Your task to perform on an android device: Open calendar and show me the fourth week of next month Image 0: 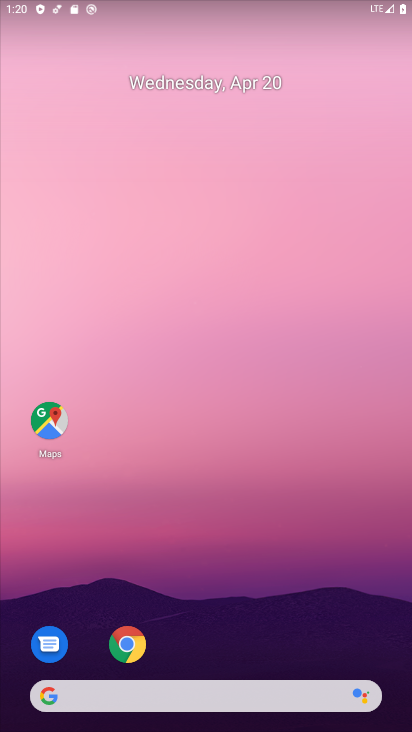
Step 0: drag from (193, 592) to (238, 6)
Your task to perform on an android device: Open calendar and show me the fourth week of next month Image 1: 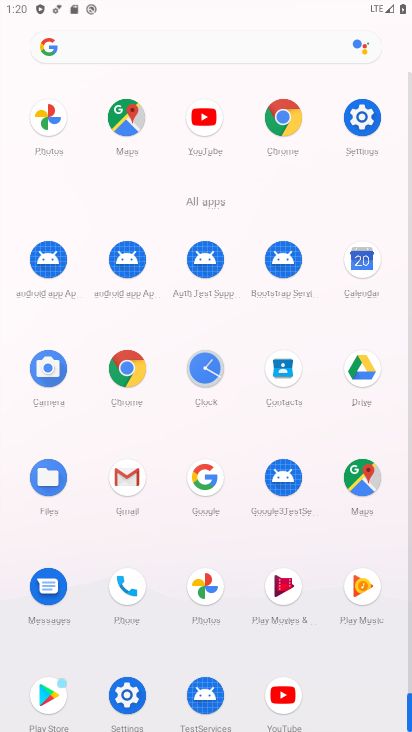
Step 1: click (358, 259)
Your task to perform on an android device: Open calendar and show me the fourth week of next month Image 2: 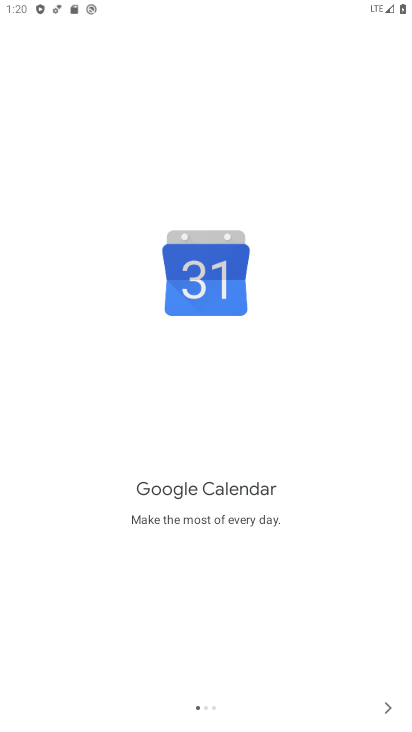
Step 2: click (383, 700)
Your task to perform on an android device: Open calendar and show me the fourth week of next month Image 3: 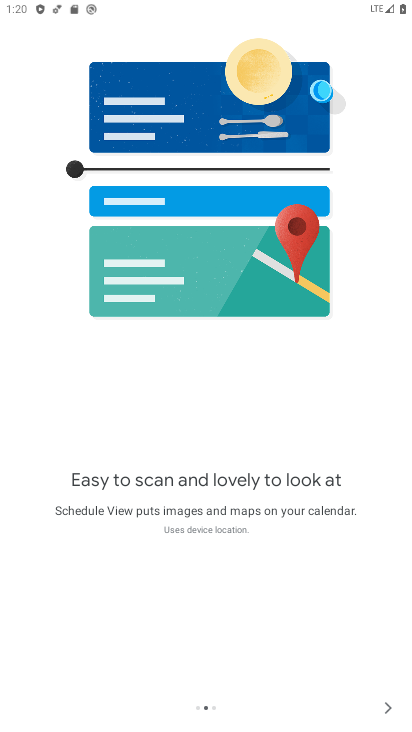
Step 3: click (385, 706)
Your task to perform on an android device: Open calendar and show me the fourth week of next month Image 4: 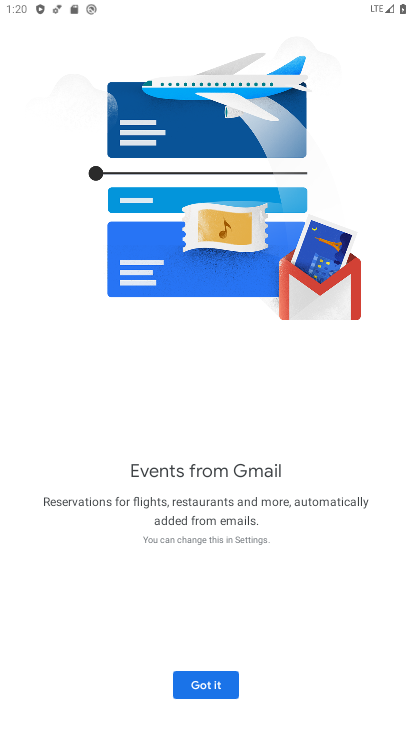
Step 4: click (229, 677)
Your task to perform on an android device: Open calendar and show me the fourth week of next month Image 5: 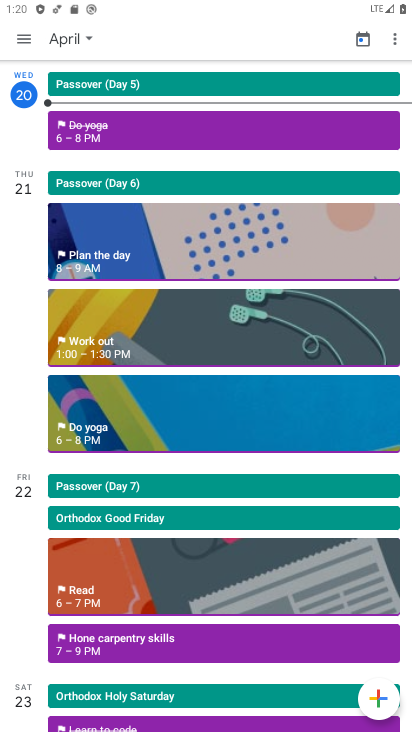
Step 5: click (88, 36)
Your task to perform on an android device: Open calendar and show me the fourth week of next month Image 6: 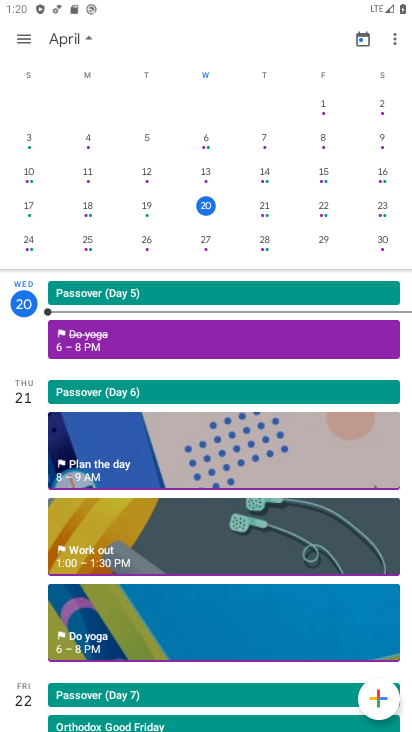
Step 6: drag from (405, 161) to (33, 193)
Your task to perform on an android device: Open calendar and show me the fourth week of next month Image 7: 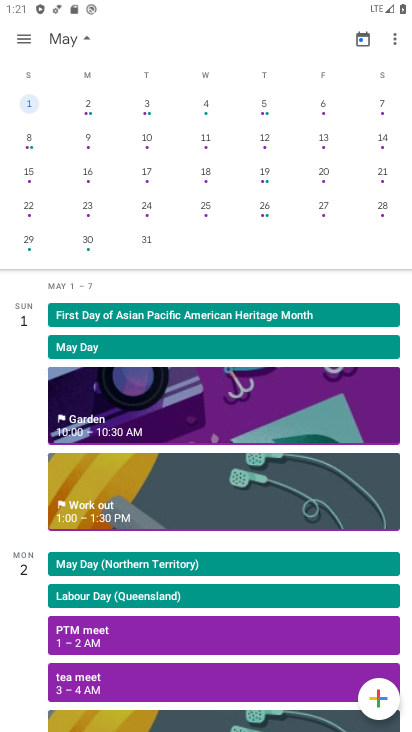
Step 7: click (205, 204)
Your task to perform on an android device: Open calendar and show me the fourth week of next month Image 8: 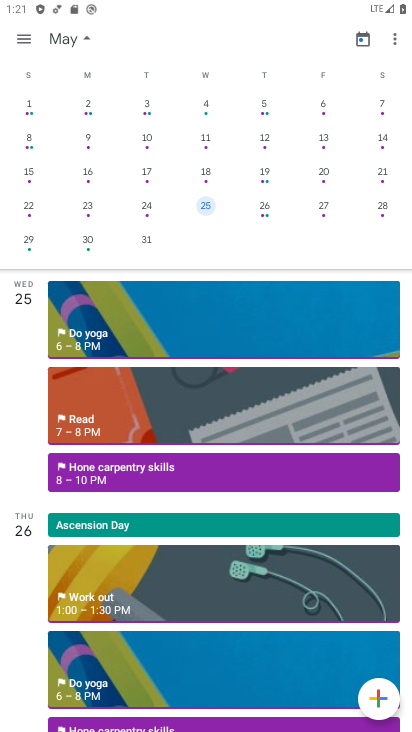
Step 8: click (12, 32)
Your task to perform on an android device: Open calendar and show me the fourth week of next month Image 9: 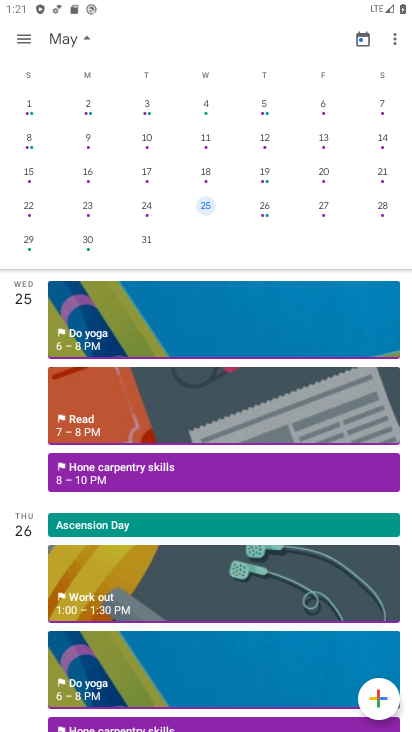
Step 9: click (23, 35)
Your task to perform on an android device: Open calendar and show me the fourth week of next month Image 10: 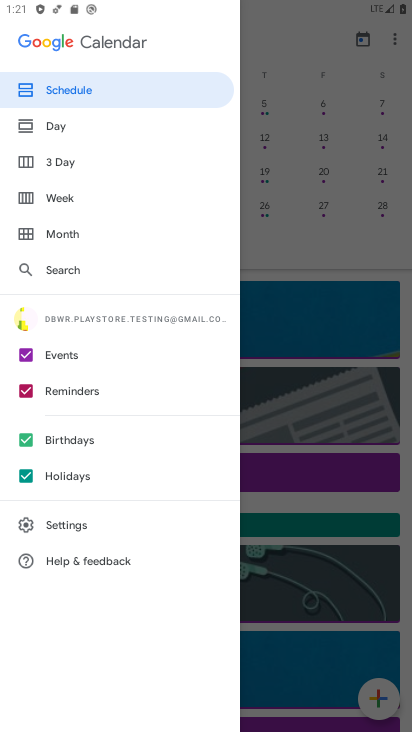
Step 10: click (44, 195)
Your task to perform on an android device: Open calendar and show me the fourth week of next month Image 11: 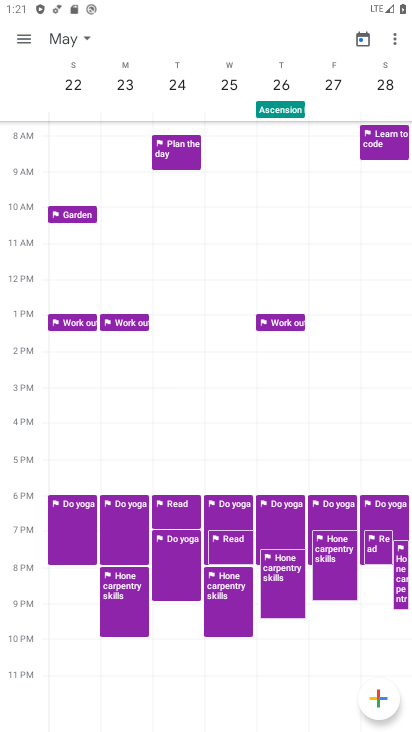
Step 11: task complete